Your task to perform on an android device: turn off location Image 0: 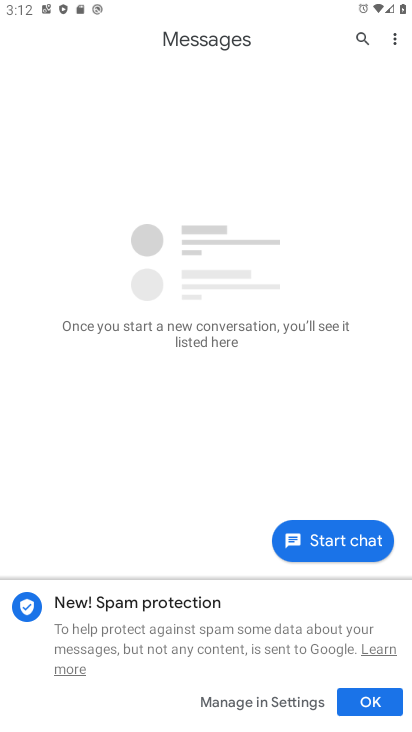
Step 0: press home button
Your task to perform on an android device: turn off location Image 1: 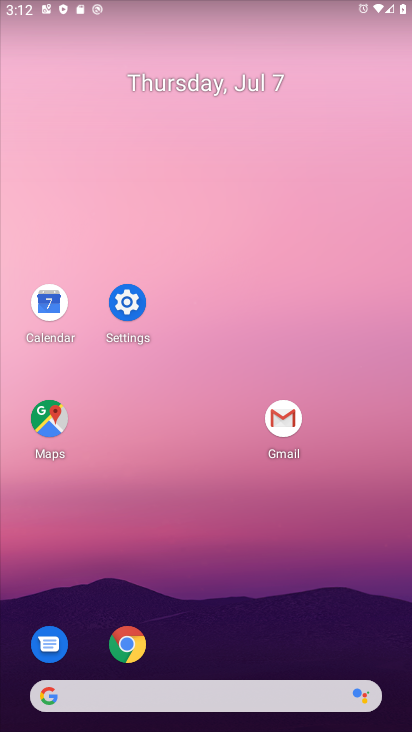
Step 1: drag from (386, 634) to (308, 130)
Your task to perform on an android device: turn off location Image 2: 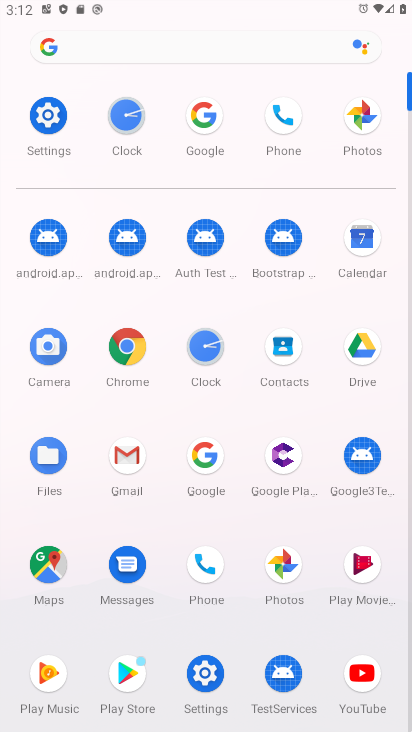
Step 2: click (48, 118)
Your task to perform on an android device: turn off location Image 3: 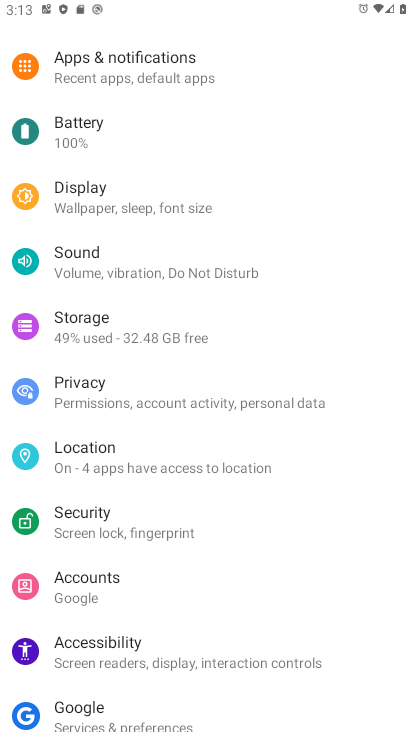
Step 3: click (85, 460)
Your task to perform on an android device: turn off location Image 4: 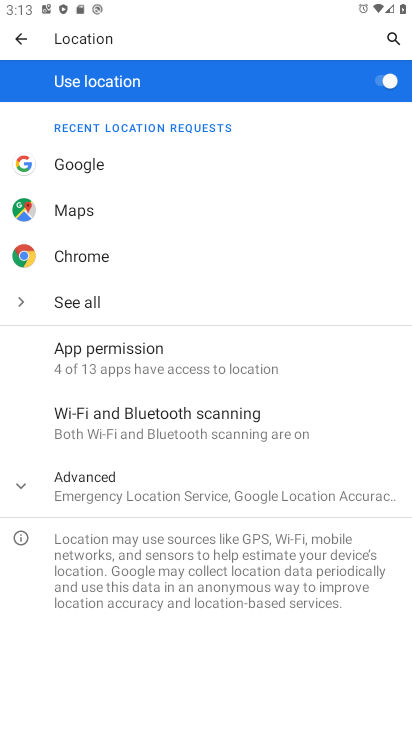
Step 4: click (380, 83)
Your task to perform on an android device: turn off location Image 5: 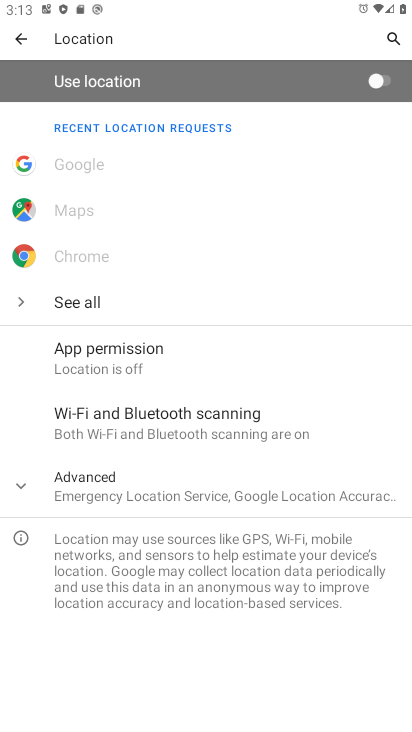
Step 5: task complete